Your task to perform on an android device: What's the news in Guyana? Image 0: 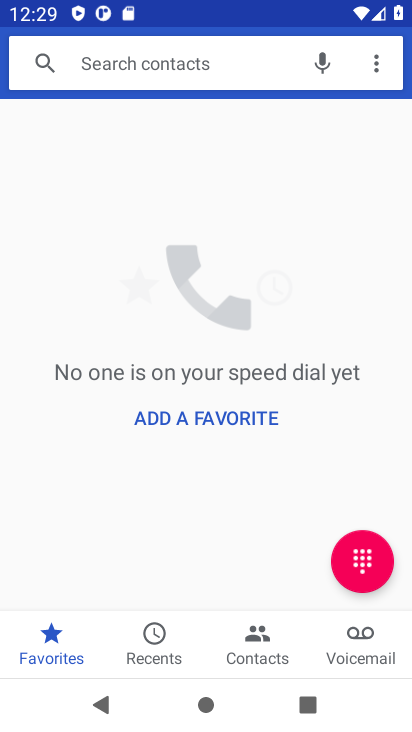
Step 0: press home button
Your task to perform on an android device: What's the news in Guyana? Image 1: 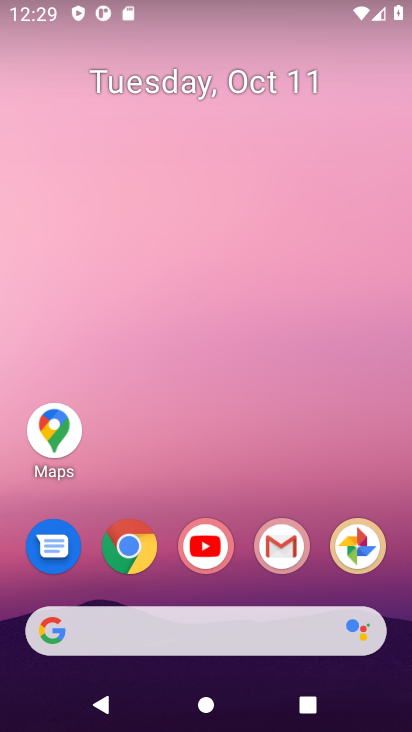
Step 1: click (118, 556)
Your task to perform on an android device: What's the news in Guyana? Image 2: 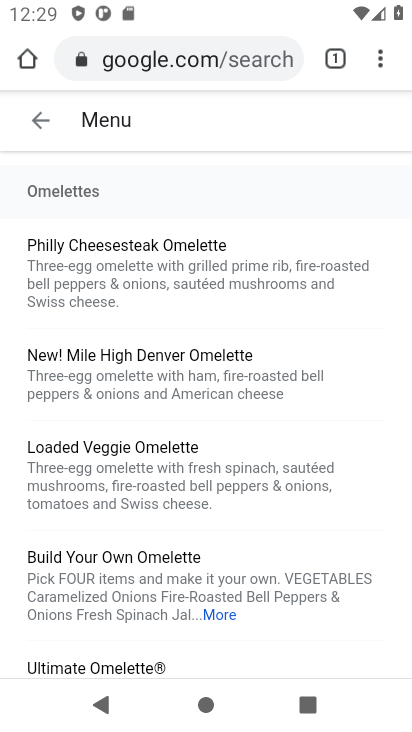
Step 2: press home button
Your task to perform on an android device: What's the news in Guyana? Image 3: 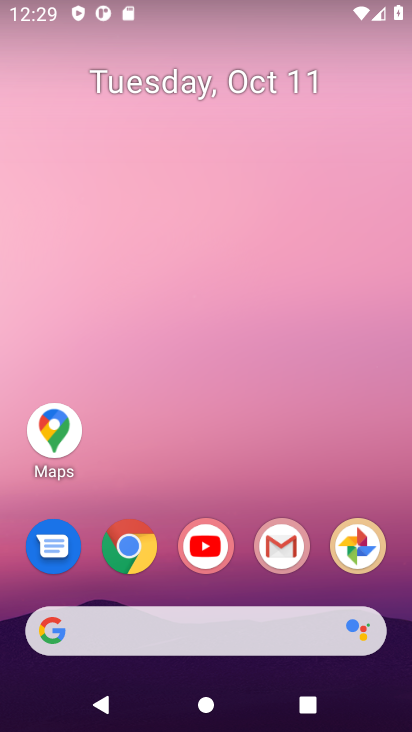
Step 3: click (126, 550)
Your task to perform on an android device: What's the news in Guyana? Image 4: 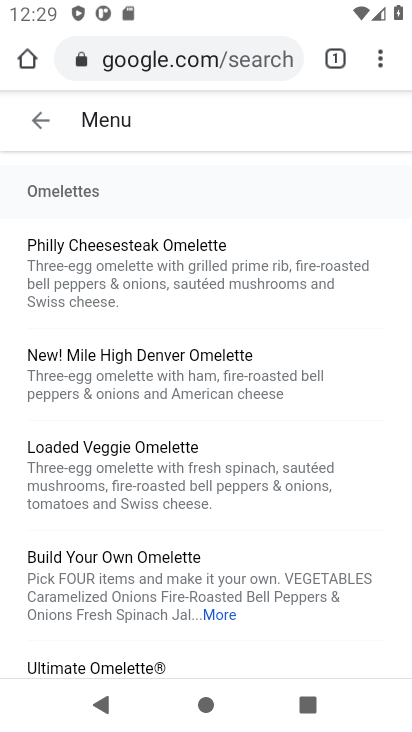
Step 4: click (230, 39)
Your task to perform on an android device: What's the news in Guyana? Image 5: 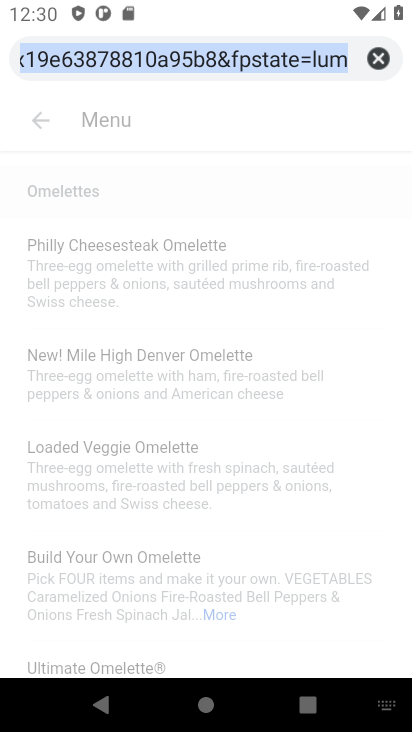
Step 5: type "news in Guyana"
Your task to perform on an android device: What's the news in Guyana? Image 6: 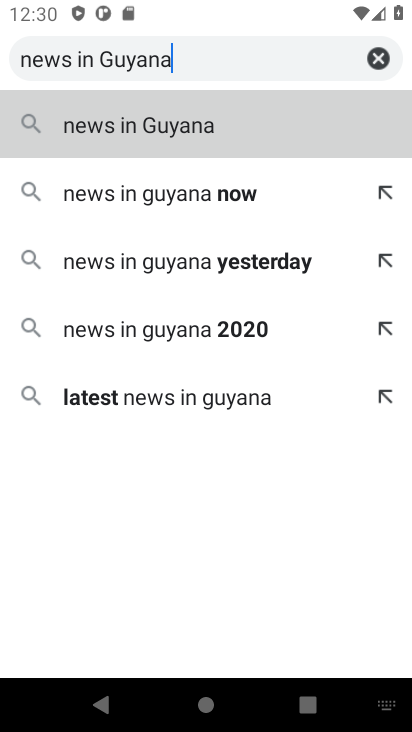
Step 6: type ""
Your task to perform on an android device: What's the news in Guyana? Image 7: 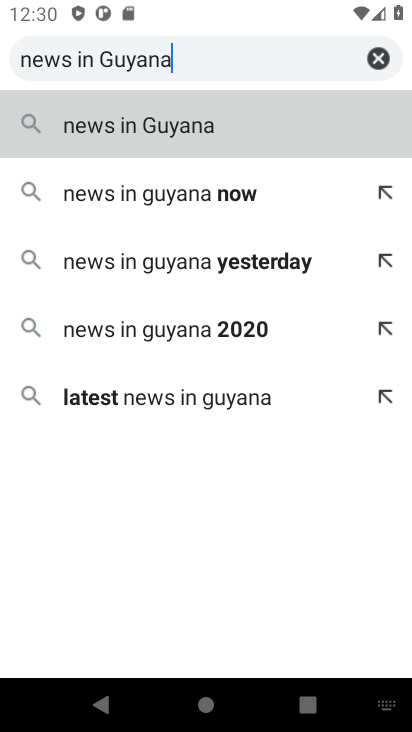
Step 7: press enter
Your task to perform on an android device: What's the news in Guyana? Image 8: 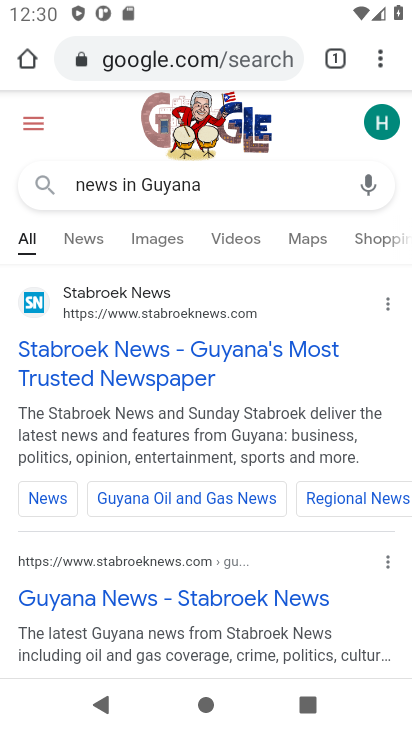
Step 8: click (92, 236)
Your task to perform on an android device: What's the news in Guyana? Image 9: 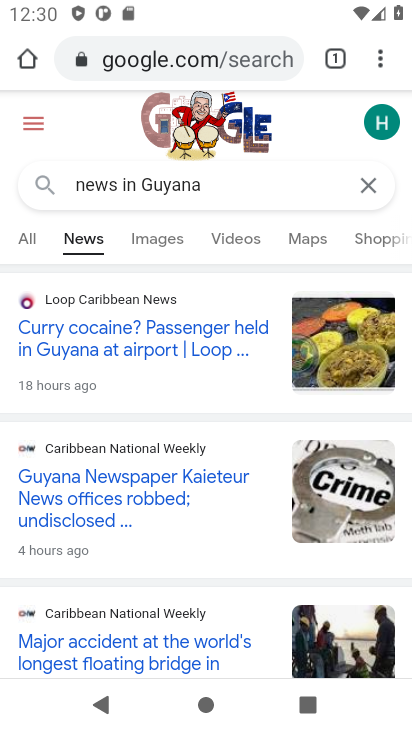
Step 9: task complete